Your task to perform on an android device: Show me popular videos on Youtube Image 0: 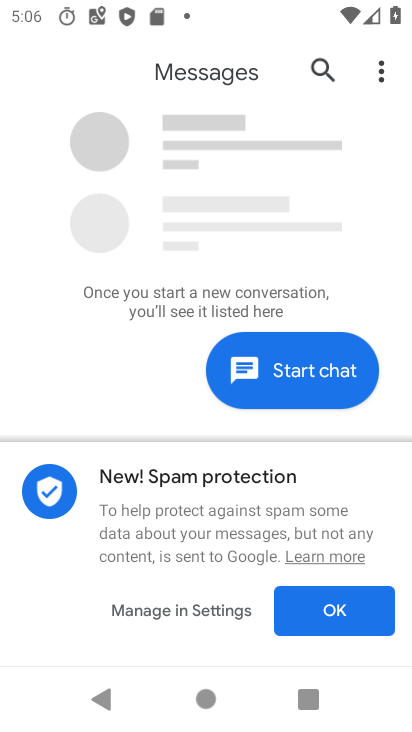
Step 0: press home button
Your task to perform on an android device: Show me popular videos on Youtube Image 1: 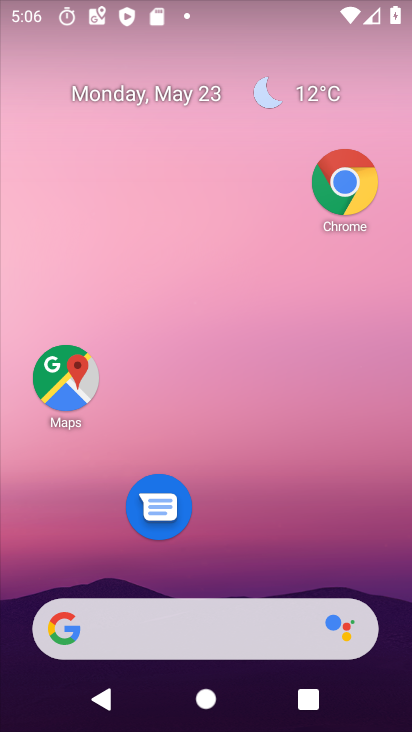
Step 1: drag from (188, 568) to (276, 13)
Your task to perform on an android device: Show me popular videos on Youtube Image 2: 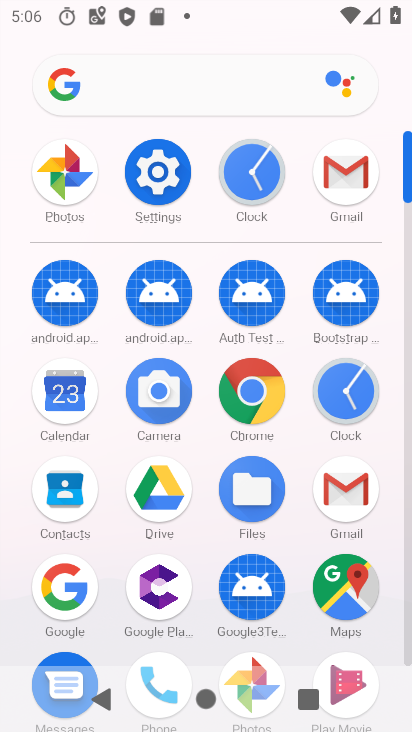
Step 2: drag from (193, 650) to (354, 88)
Your task to perform on an android device: Show me popular videos on Youtube Image 3: 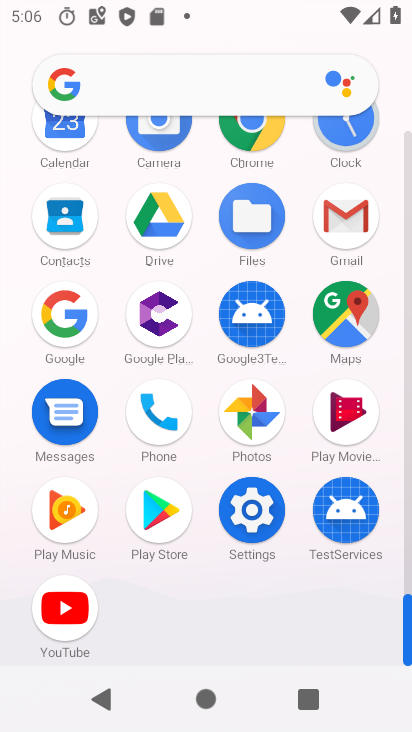
Step 3: click (91, 598)
Your task to perform on an android device: Show me popular videos on Youtube Image 4: 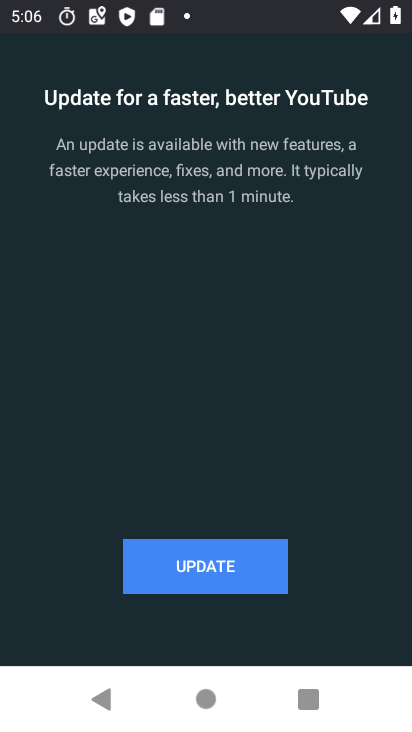
Step 4: click (208, 580)
Your task to perform on an android device: Show me popular videos on Youtube Image 5: 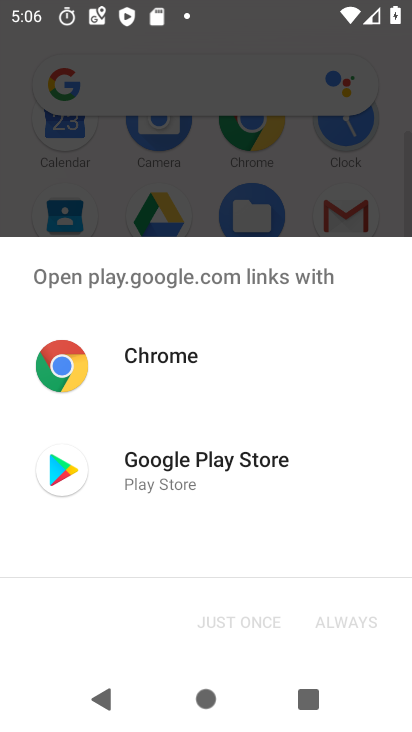
Step 5: click (212, 487)
Your task to perform on an android device: Show me popular videos on Youtube Image 6: 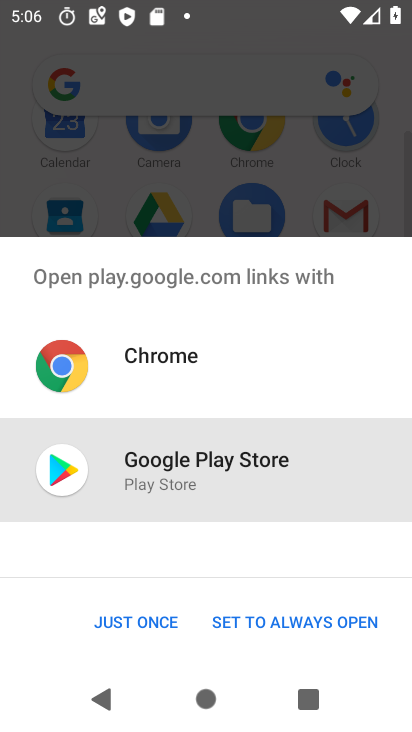
Step 6: click (146, 621)
Your task to perform on an android device: Show me popular videos on Youtube Image 7: 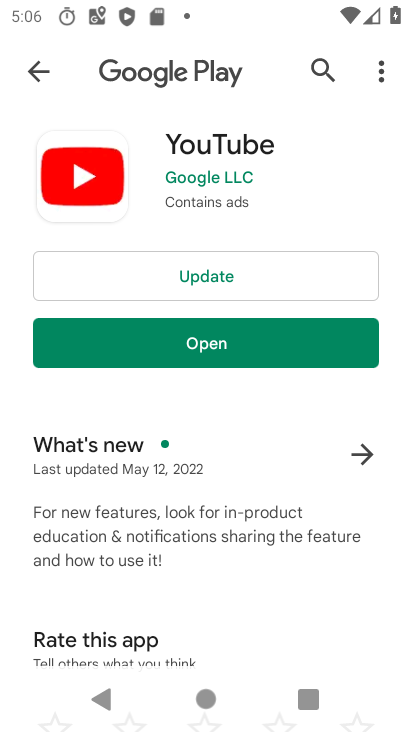
Step 7: click (187, 362)
Your task to perform on an android device: Show me popular videos on Youtube Image 8: 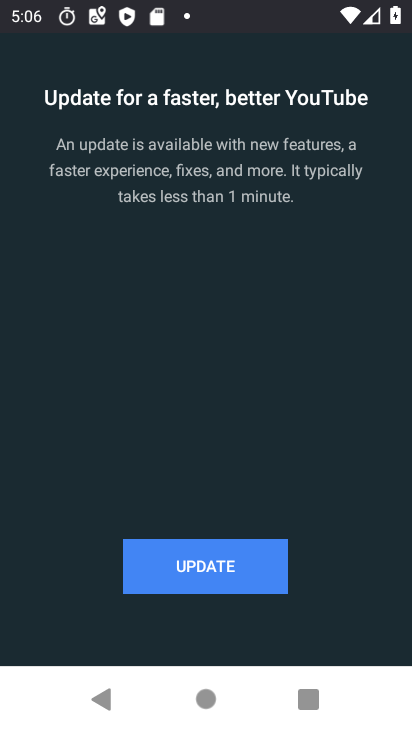
Step 8: click (219, 544)
Your task to perform on an android device: Show me popular videos on Youtube Image 9: 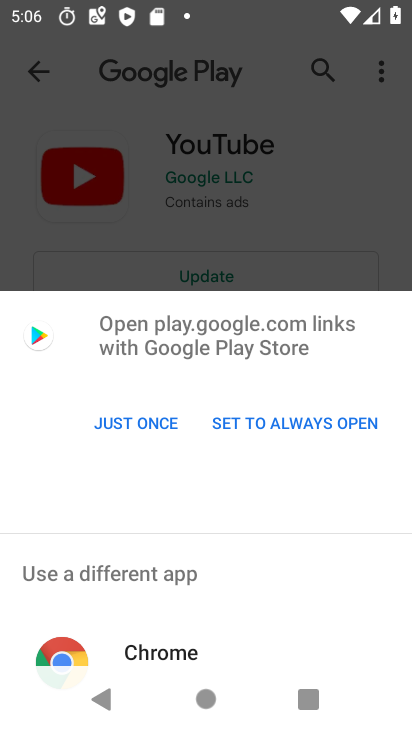
Step 9: click (132, 424)
Your task to perform on an android device: Show me popular videos on Youtube Image 10: 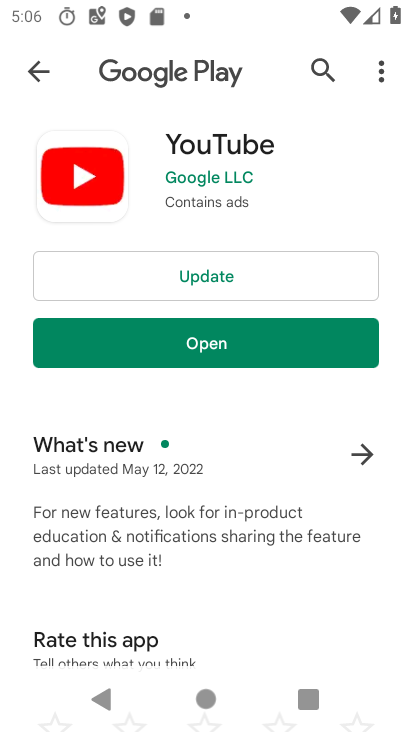
Step 10: click (242, 281)
Your task to perform on an android device: Show me popular videos on Youtube Image 11: 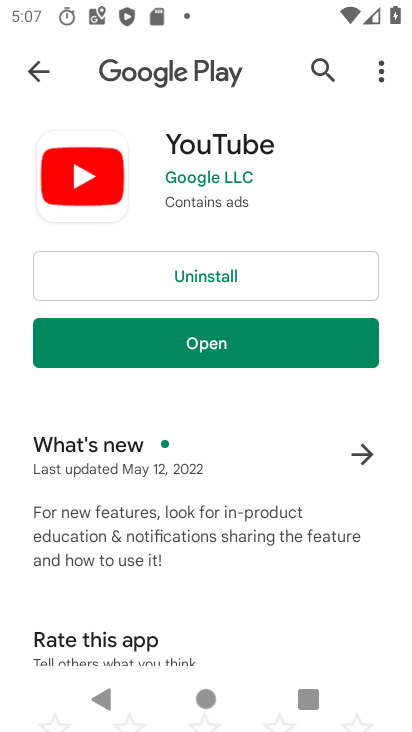
Step 11: click (182, 359)
Your task to perform on an android device: Show me popular videos on Youtube Image 12: 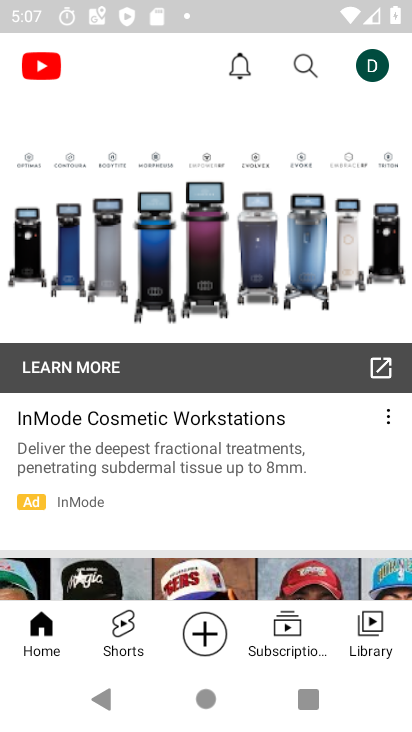
Step 12: drag from (125, 110) to (133, 551)
Your task to perform on an android device: Show me popular videos on Youtube Image 13: 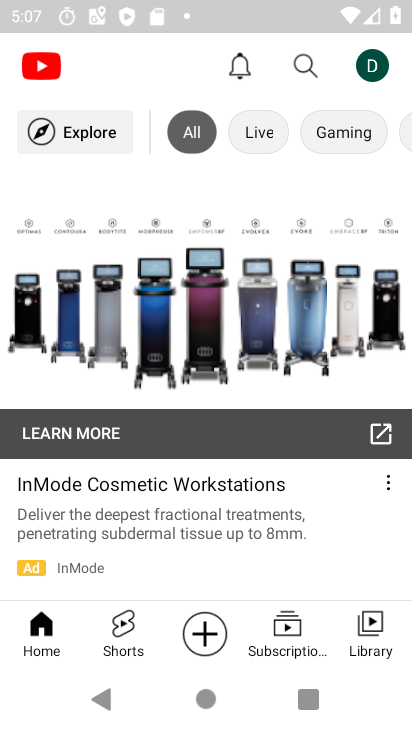
Step 13: click (81, 140)
Your task to perform on an android device: Show me popular videos on Youtube Image 14: 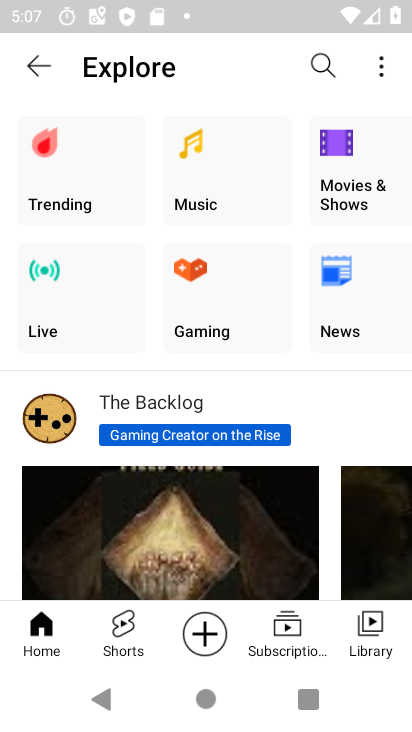
Step 14: task complete